Your task to perform on an android device: Go to Yahoo.com Image 0: 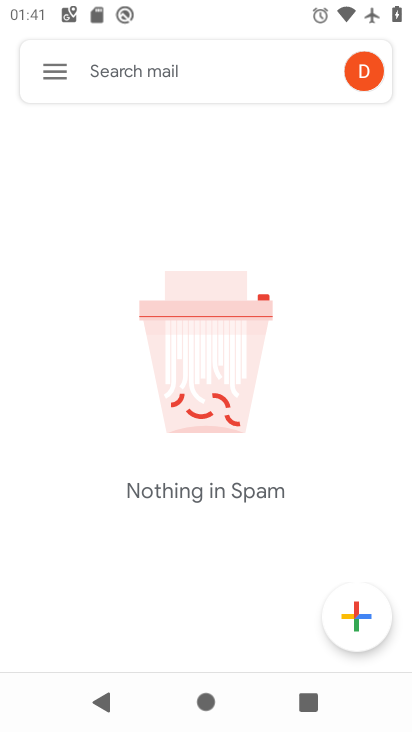
Step 0: press home button
Your task to perform on an android device: Go to Yahoo.com Image 1: 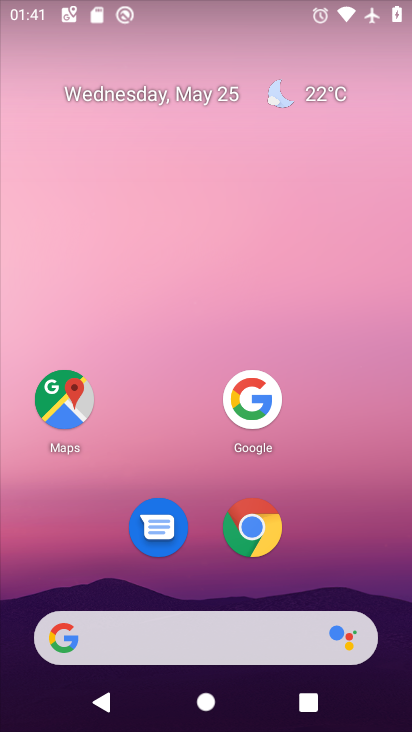
Step 1: click (261, 538)
Your task to perform on an android device: Go to Yahoo.com Image 2: 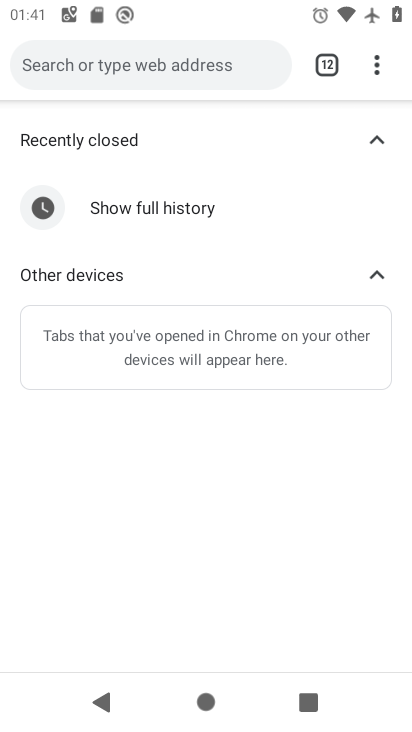
Step 2: drag from (377, 67) to (240, 131)
Your task to perform on an android device: Go to Yahoo.com Image 3: 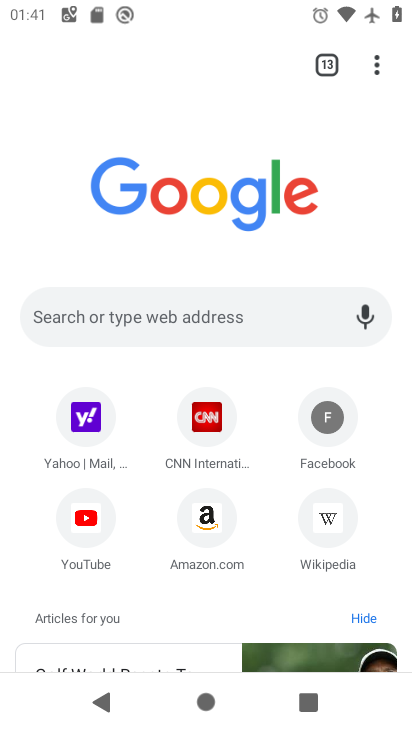
Step 3: click (82, 414)
Your task to perform on an android device: Go to Yahoo.com Image 4: 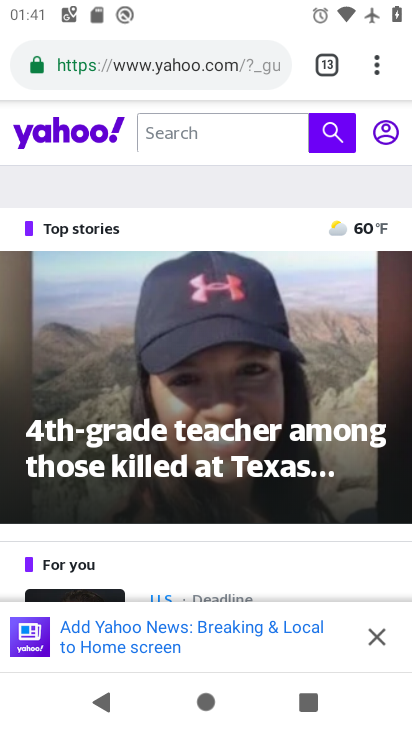
Step 4: task complete